Your task to perform on an android device: Search for good Korean restaurants Image 0: 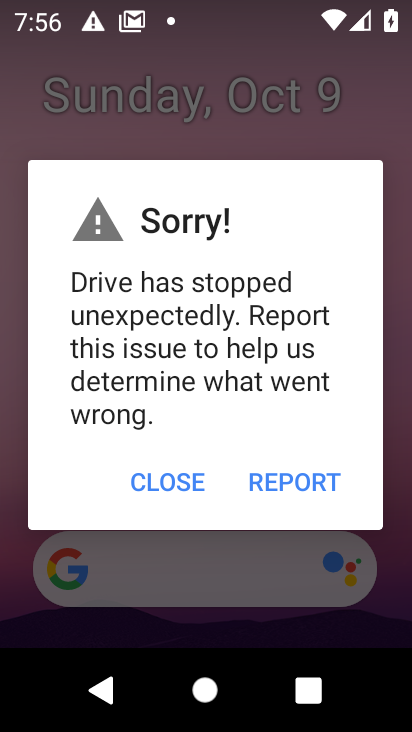
Step 0: click (143, 466)
Your task to perform on an android device: Search for good Korean restaurants Image 1: 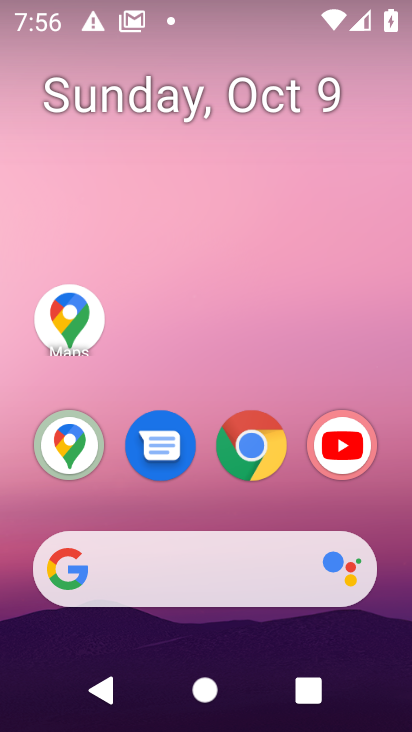
Step 1: drag from (263, 513) to (297, 211)
Your task to perform on an android device: Search for good Korean restaurants Image 2: 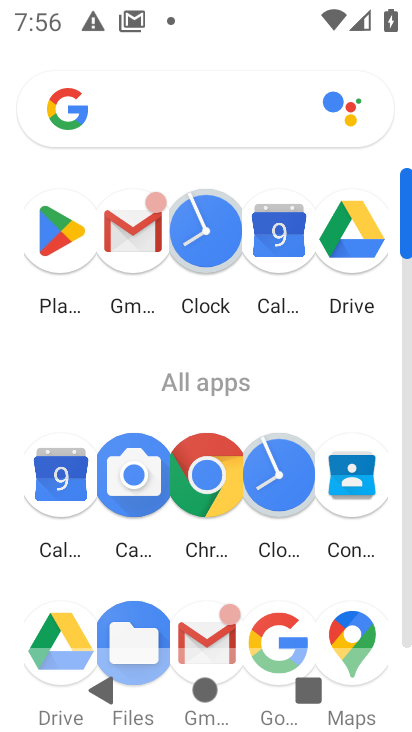
Step 2: click (292, 634)
Your task to perform on an android device: Search for good Korean restaurants Image 3: 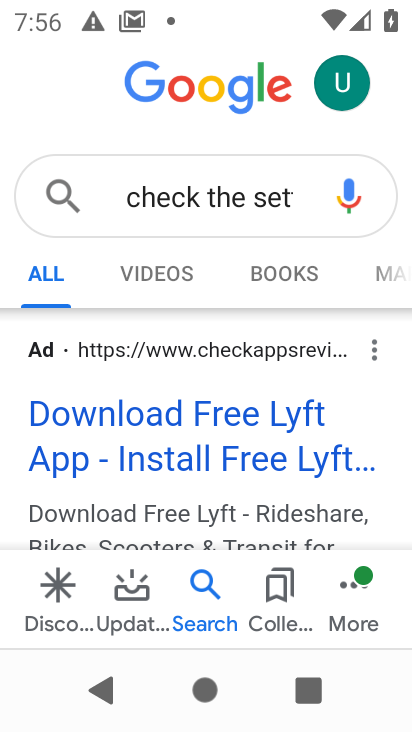
Step 3: click (290, 194)
Your task to perform on an android device: Search for good Korean restaurants Image 4: 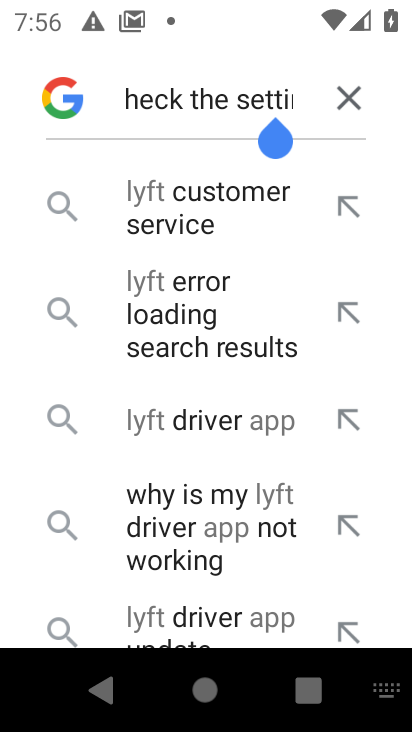
Step 4: click (346, 94)
Your task to perform on an android device: Search for good Korean restaurants Image 5: 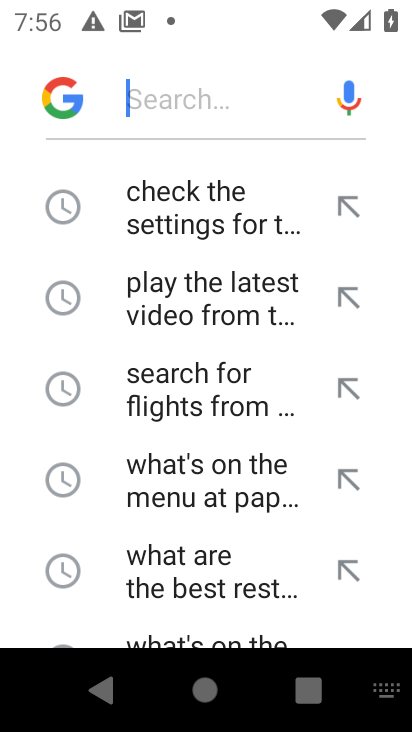
Step 5: type "Search for good Korean restaurants"
Your task to perform on an android device: Search for good Korean restaurants Image 6: 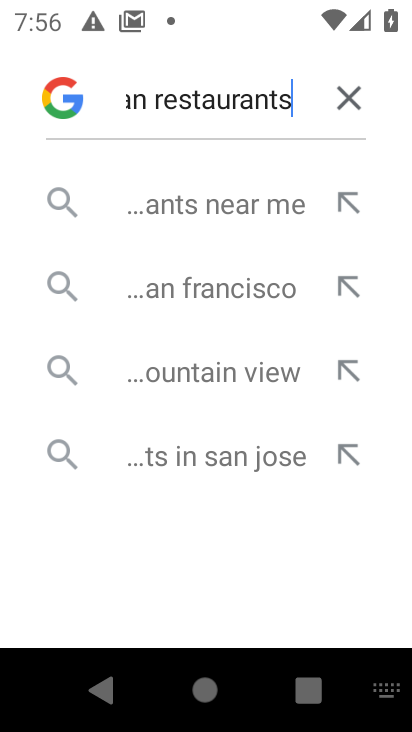
Step 6: click (198, 205)
Your task to perform on an android device: Search for good Korean restaurants Image 7: 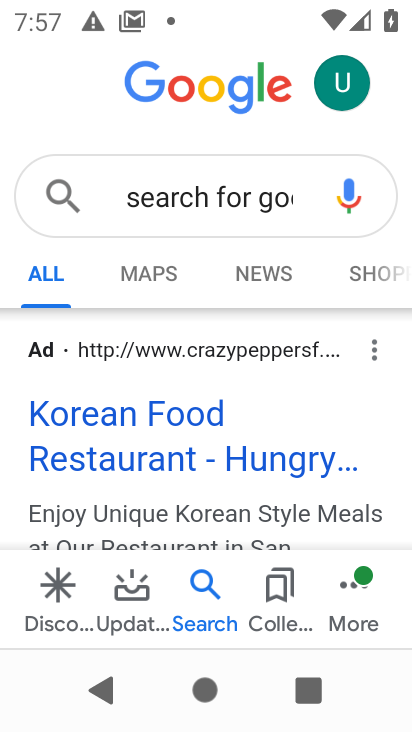
Step 7: click (135, 458)
Your task to perform on an android device: Search for good Korean restaurants Image 8: 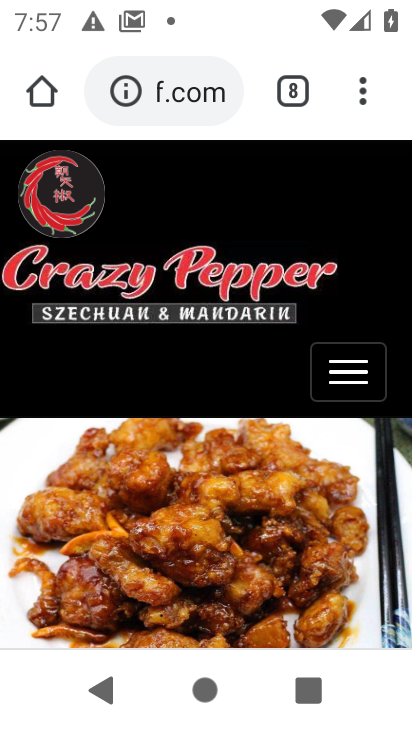
Step 8: task complete